Your task to perform on an android device: turn on the 24-hour format for clock Image 0: 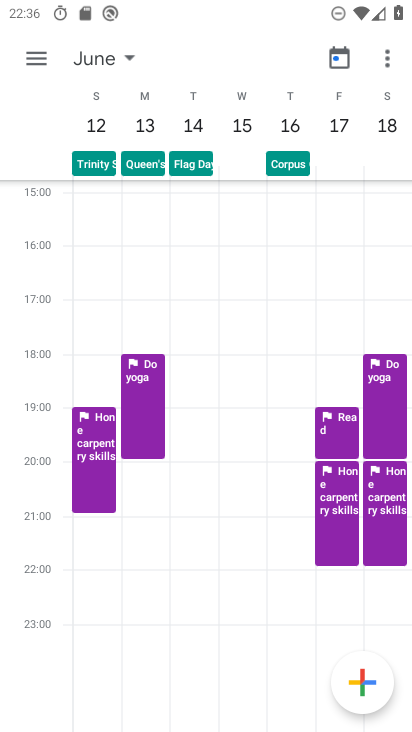
Step 0: press home button
Your task to perform on an android device: turn on the 24-hour format for clock Image 1: 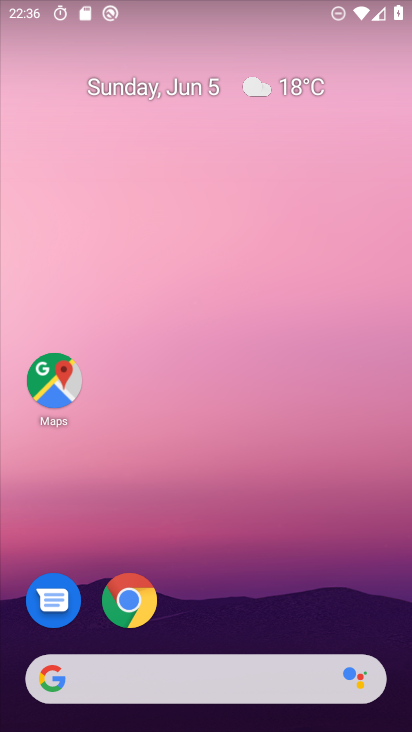
Step 1: drag from (306, 597) to (203, 127)
Your task to perform on an android device: turn on the 24-hour format for clock Image 2: 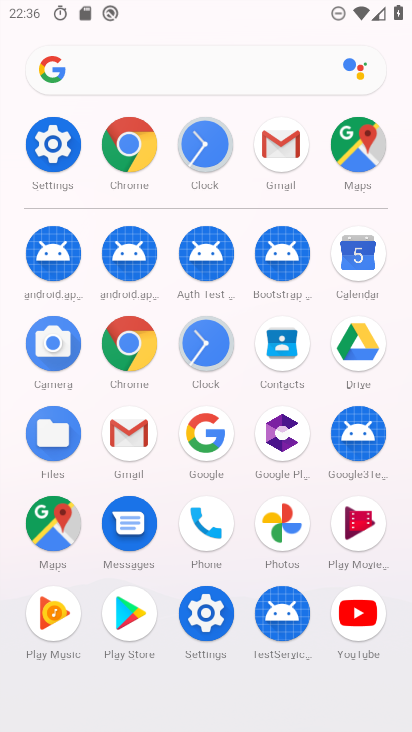
Step 2: click (201, 138)
Your task to perform on an android device: turn on the 24-hour format for clock Image 3: 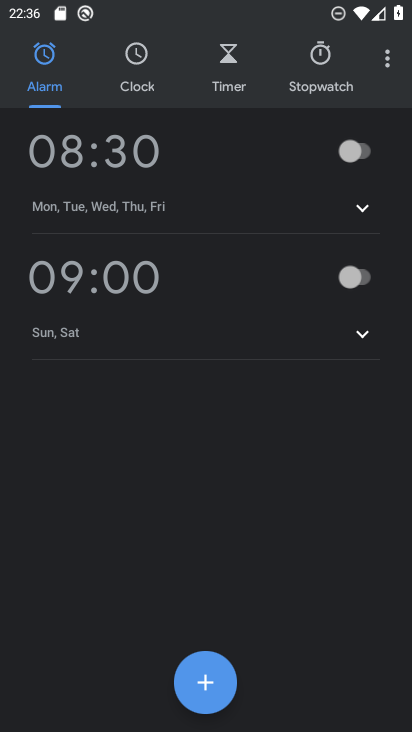
Step 3: click (390, 55)
Your task to perform on an android device: turn on the 24-hour format for clock Image 4: 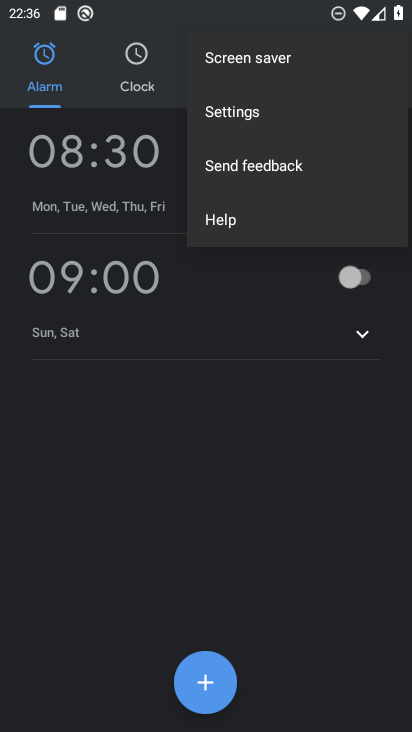
Step 4: click (249, 110)
Your task to perform on an android device: turn on the 24-hour format for clock Image 5: 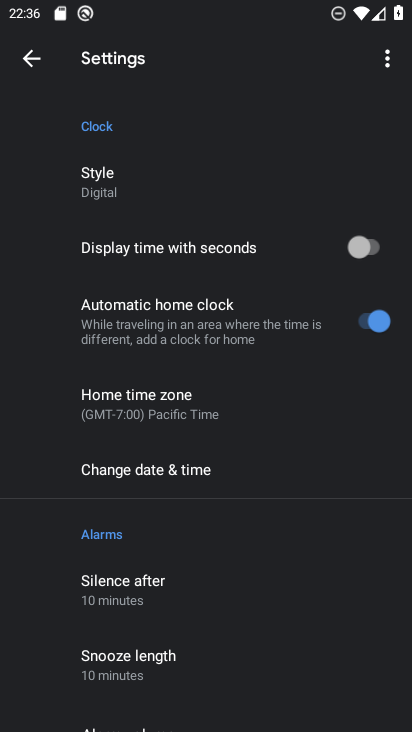
Step 5: click (160, 476)
Your task to perform on an android device: turn on the 24-hour format for clock Image 6: 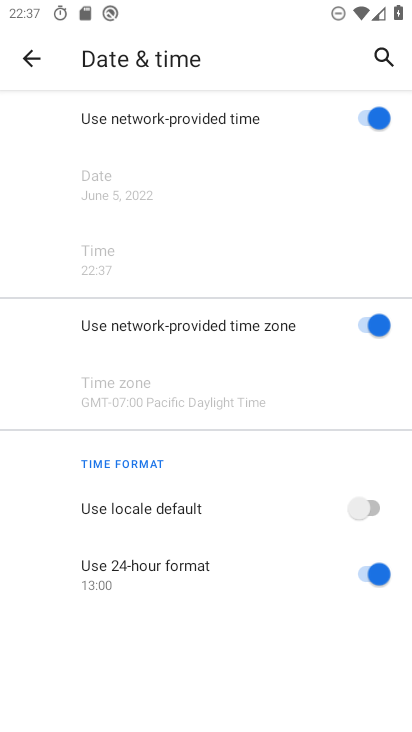
Step 6: task complete